Your task to perform on an android device: What is the news today? Image 0: 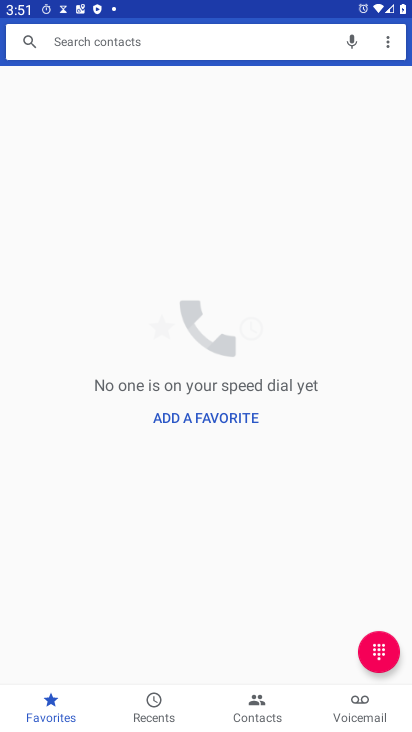
Step 0: press home button
Your task to perform on an android device: What is the news today? Image 1: 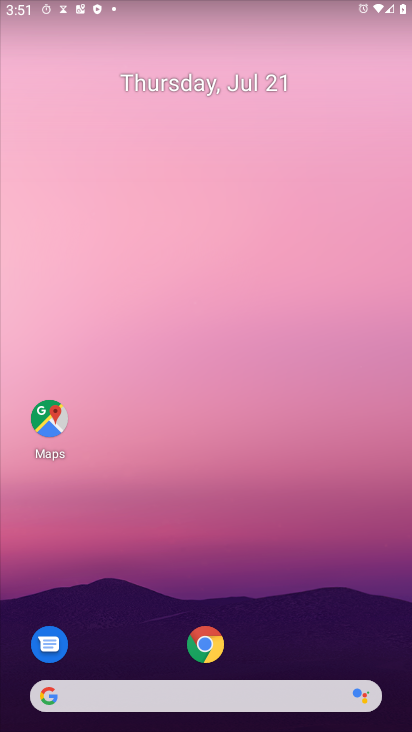
Step 1: click (40, 698)
Your task to perform on an android device: What is the news today? Image 2: 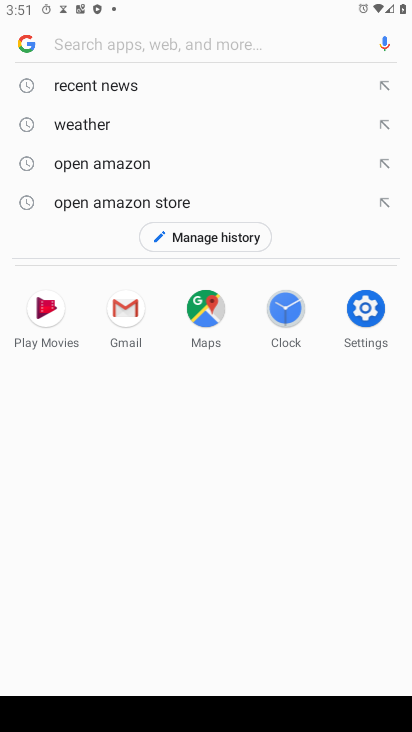
Step 2: type "What is the news today"
Your task to perform on an android device: What is the news today? Image 3: 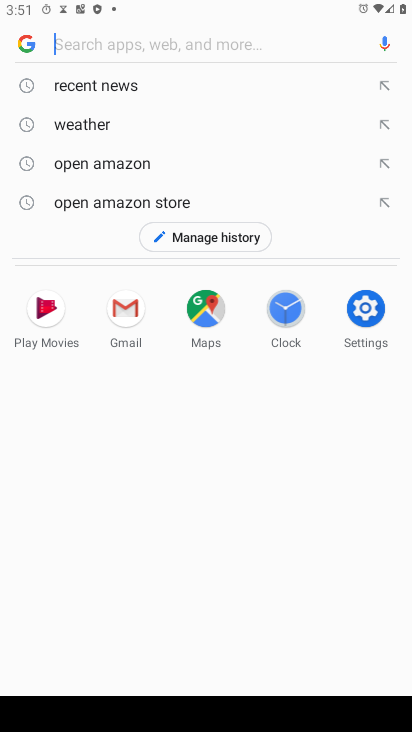
Step 3: click (100, 44)
Your task to perform on an android device: What is the news today? Image 4: 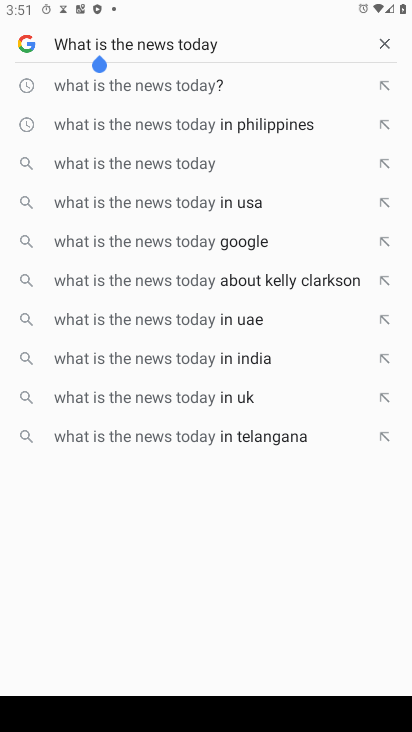
Step 4: press enter
Your task to perform on an android device: What is the news today? Image 5: 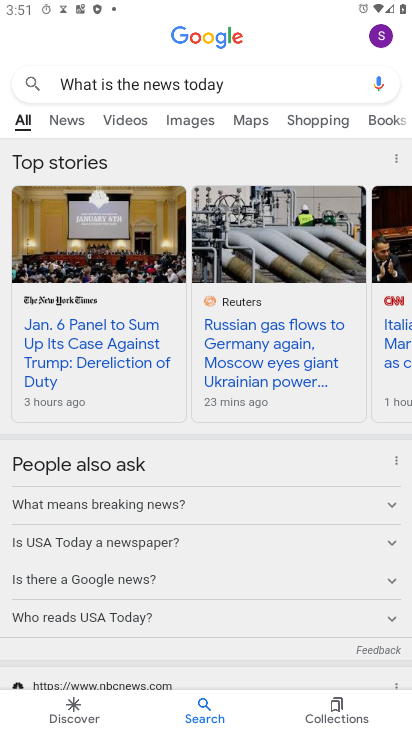
Step 5: task complete